Your task to perform on an android device: refresh tabs in the chrome app Image 0: 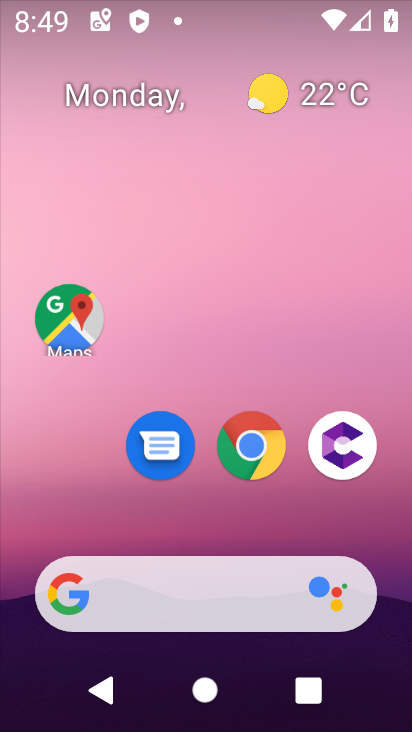
Step 0: click (267, 455)
Your task to perform on an android device: refresh tabs in the chrome app Image 1: 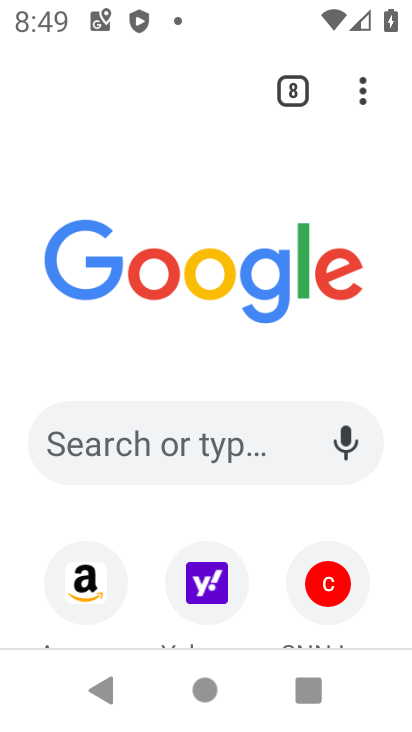
Step 1: drag from (257, 476) to (187, 504)
Your task to perform on an android device: refresh tabs in the chrome app Image 2: 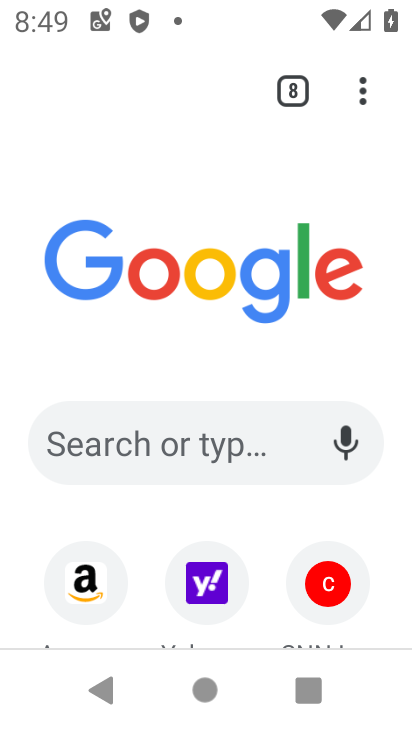
Step 2: press home button
Your task to perform on an android device: refresh tabs in the chrome app Image 3: 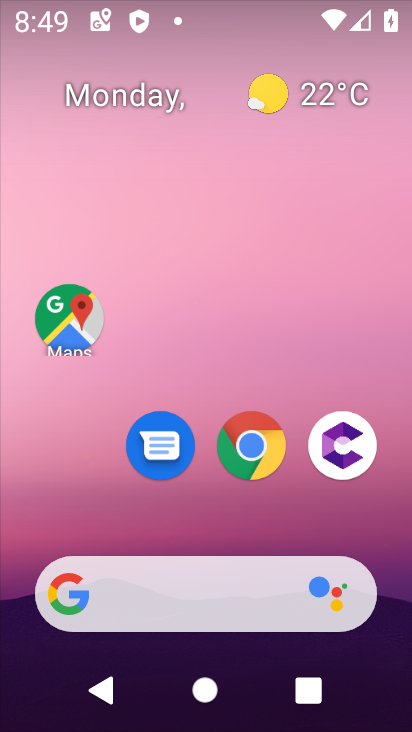
Step 3: click (241, 444)
Your task to perform on an android device: refresh tabs in the chrome app Image 4: 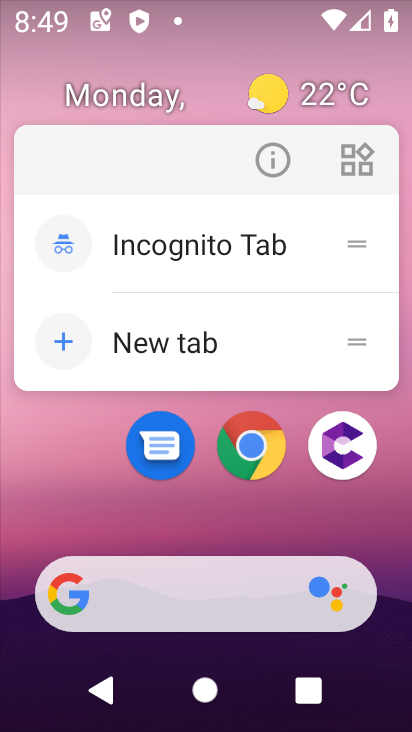
Step 4: click (246, 448)
Your task to perform on an android device: refresh tabs in the chrome app Image 5: 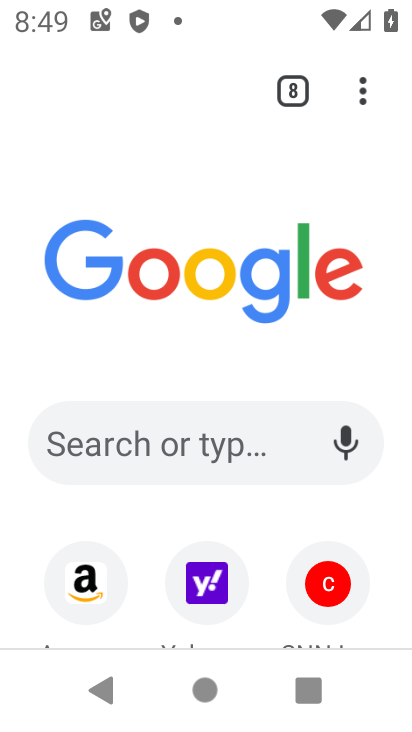
Step 5: drag from (364, 99) to (408, 88)
Your task to perform on an android device: refresh tabs in the chrome app Image 6: 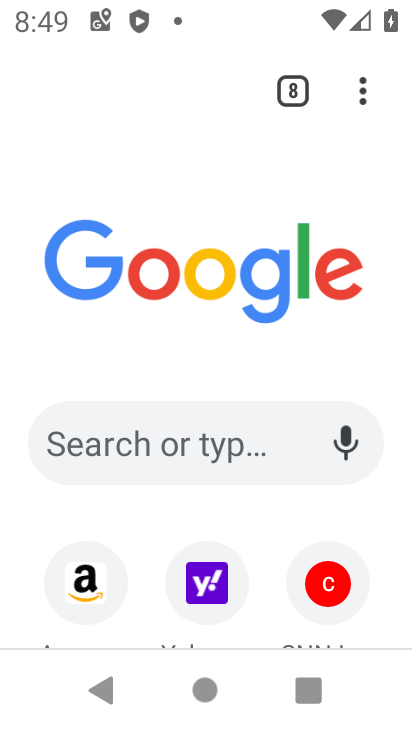
Step 6: click (365, 93)
Your task to perform on an android device: refresh tabs in the chrome app Image 7: 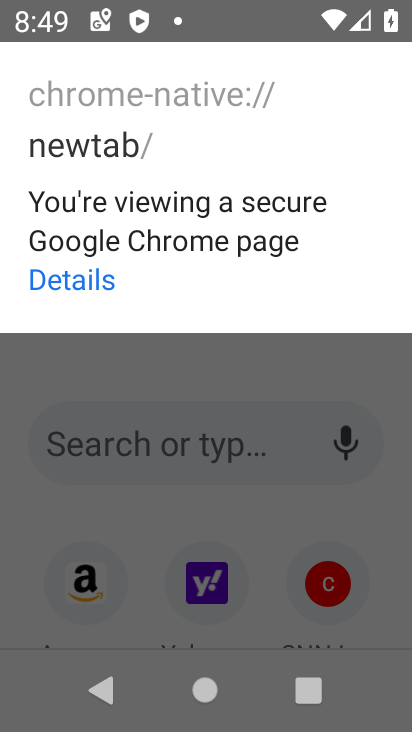
Step 7: drag from (367, 94) to (394, 377)
Your task to perform on an android device: refresh tabs in the chrome app Image 8: 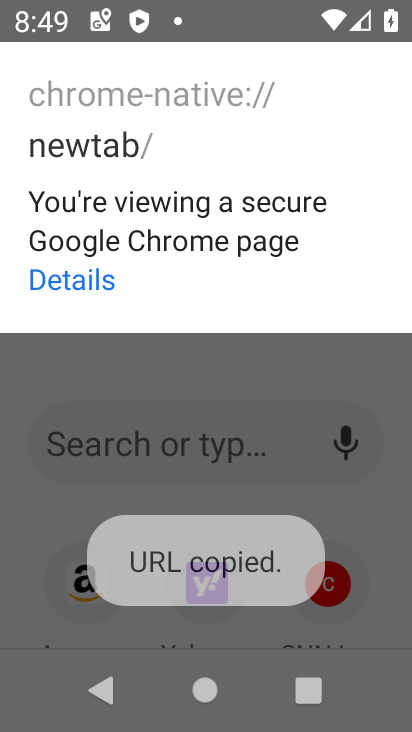
Step 8: click (234, 362)
Your task to perform on an android device: refresh tabs in the chrome app Image 9: 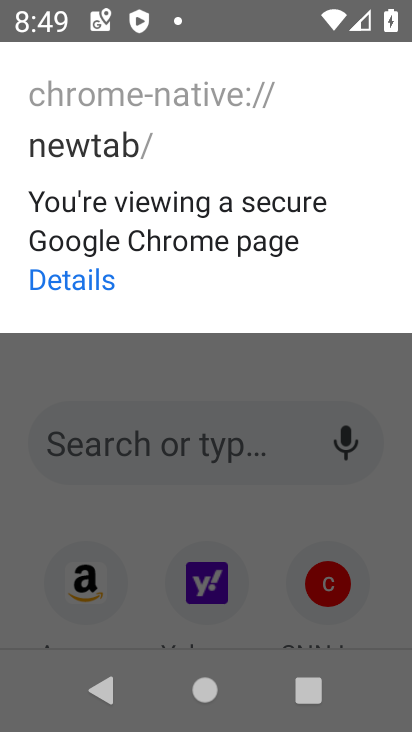
Step 9: click (234, 362)
Your task to perform on an android device: refresh tabs in the chrome app Image 10: 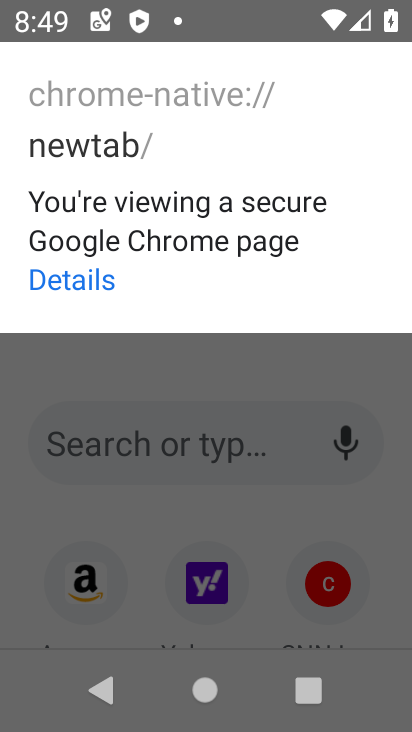
Step 10: click (234, 362)
Your task to perform on an android device: refresh tabs in the chrome app Image 11: 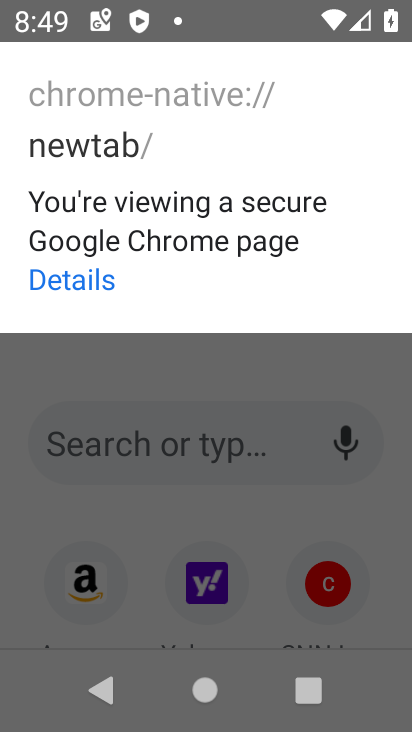
Step 11: click (56, 376)
Your task to perform on an android device: refresh tabs in the chrome app Image 12: 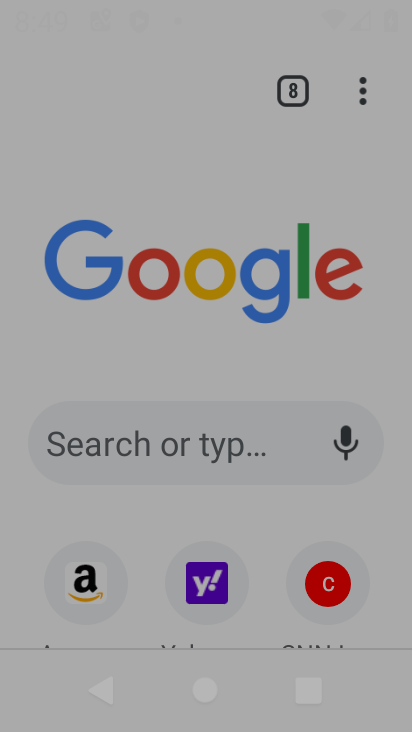
Step 12: click (52, 370)
Your task to perform on an android device: refresh tabs in the chrome app Image 13: 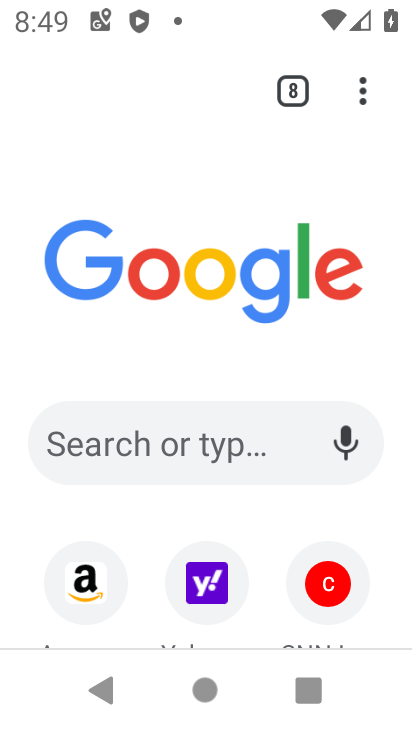
Step 13: drag from (352, 88) to (401, 91)
Your task to perform on an android device: refresh tabs in the chrome app Image 14: 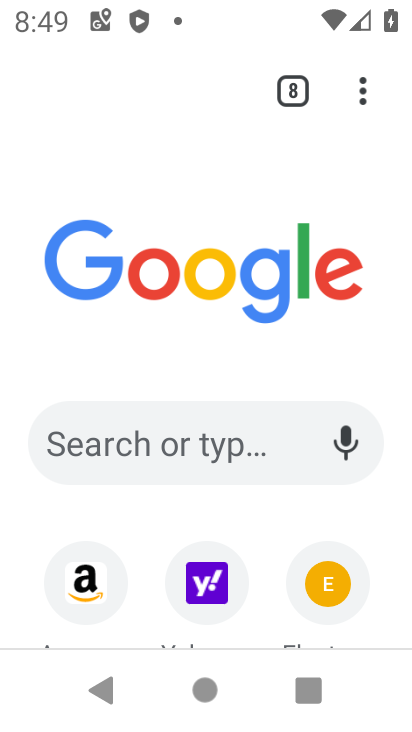
Step 14: click (358, 91)
Your task to perform on an android device: refresh tabs in the chrome app Image 15: 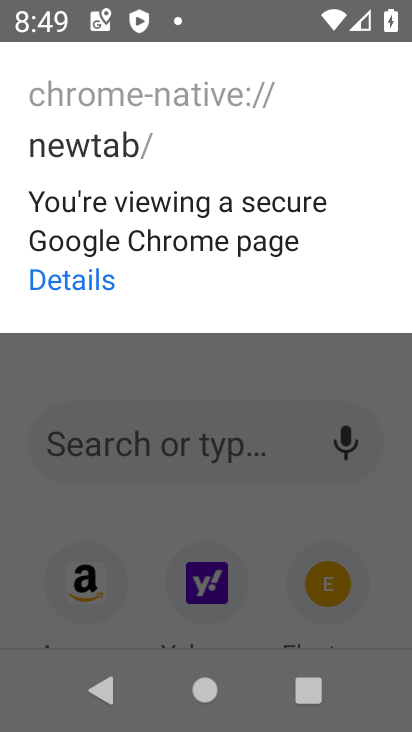
Step 15: click (330, 374)
Your task to perform on an android device: refresh tabs in the chrome app Image 16: 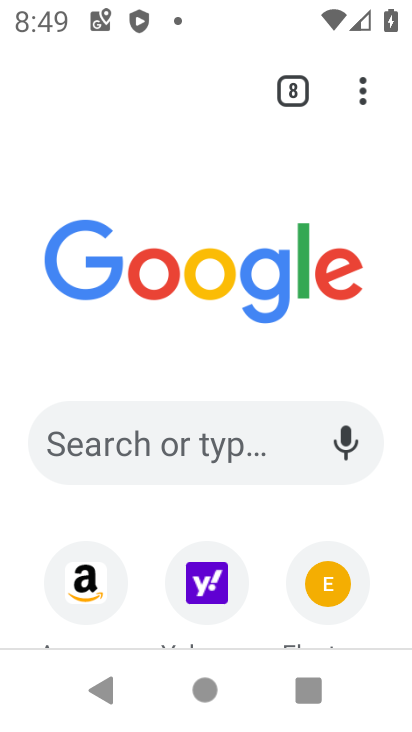
Step 16: task complete